Your task to perform on an android device: toggle notifications settings in the gmail app Image 0: 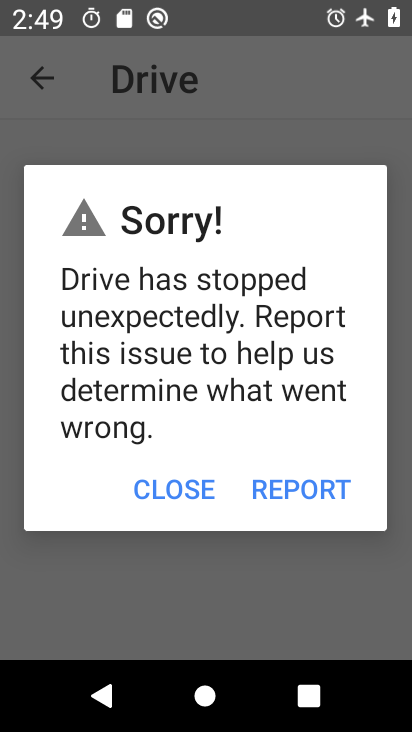
Step 0: press home button
Your task to perform on an android device: toggle notifications settings in the gmail app Image 1: 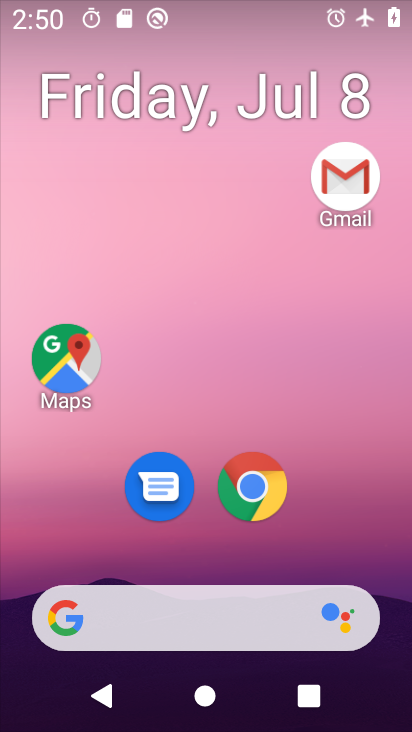
Step 1: drag from (366, 501) to (336, 104)
Your task to perform on an android device: toggle notifications settings in the gmail app Image 2: 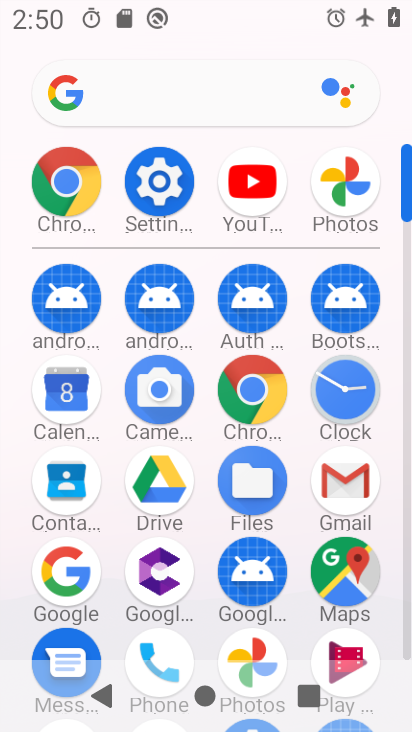
Step 2: click (363, 476)
Your task to perform on an android device: toggle notifications settings in the gmail app Image 3: 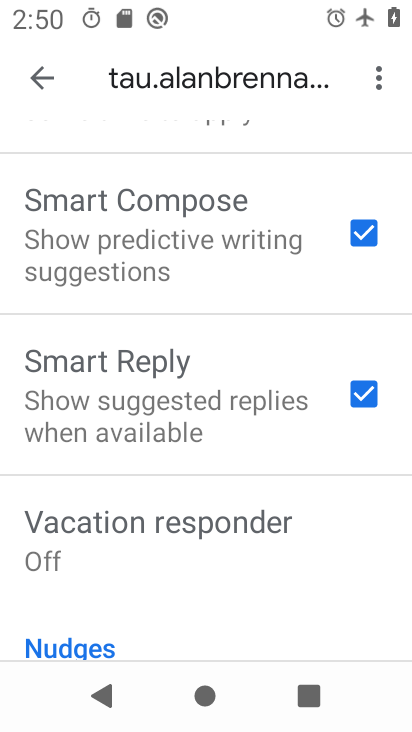
Step 3: press back button
Your task to perform on an android device: toggle notifications settings in the gmail app Image 4: 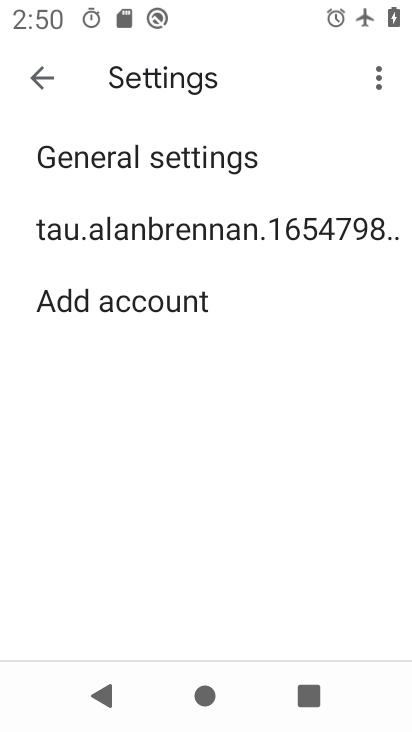
Step 4: press home button
Your task to perform on an android device: toggle notifications settings in the gmail app Image 5: 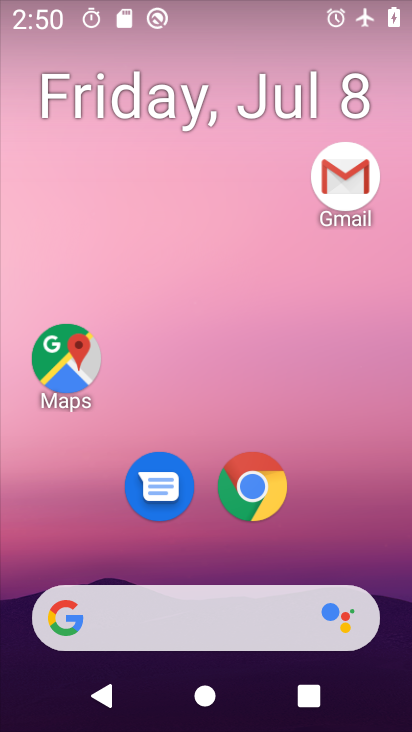
Step 5: drag from (340, 530) to (394, 138)
Your task to perform on an android device: toggle notifications settings in the gmail app Image 6: 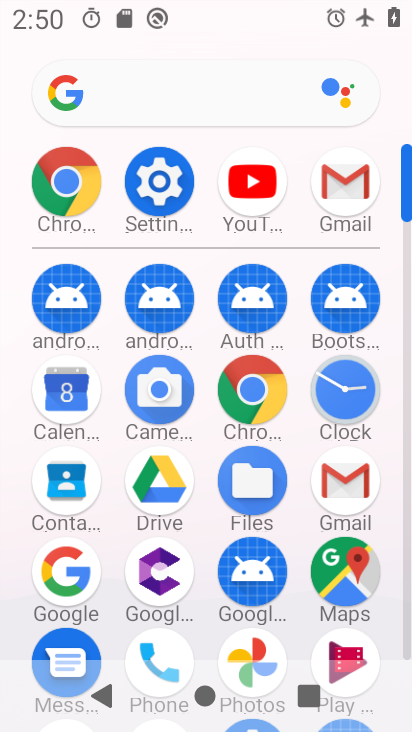
Step 6: click (363, 479)
Your task to perform on an android device: toggle notifications settings in the gmail app Image 7: 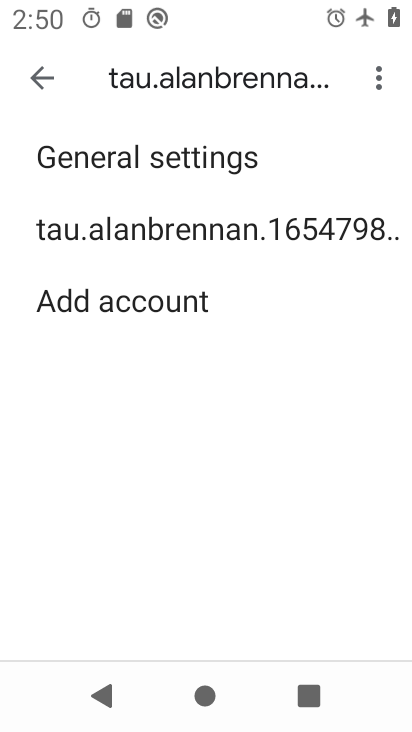
Step 7: click (221, 231)
Your task to perform on an android device: toggle notifications settings in the gmail app Image 8: 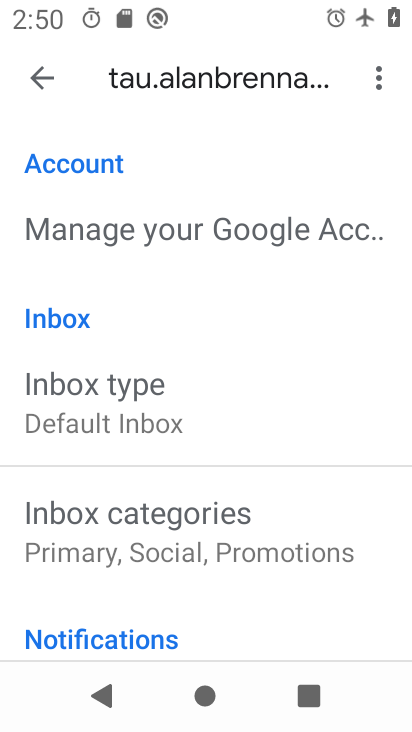
Step 8: drag from (301, 436) to (325, 310)
Your task to perform on an android device: toggle notifications settings in the gmail app Image 9: 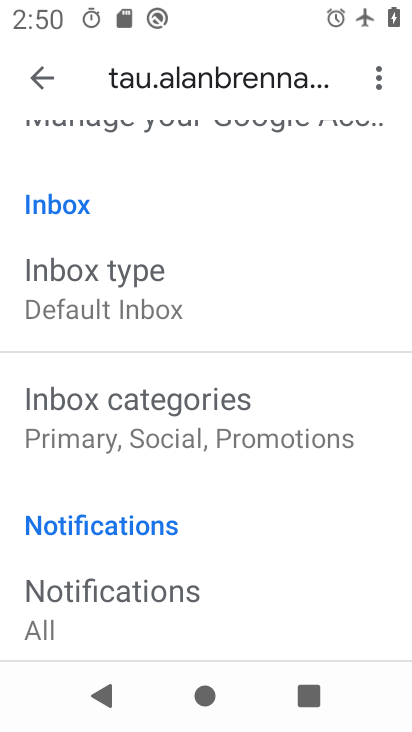
Step 9: drag from (340, 519) to (365, 344)
Your task to perform on an android device: toggle notifications settings in the gmail app Image 10: 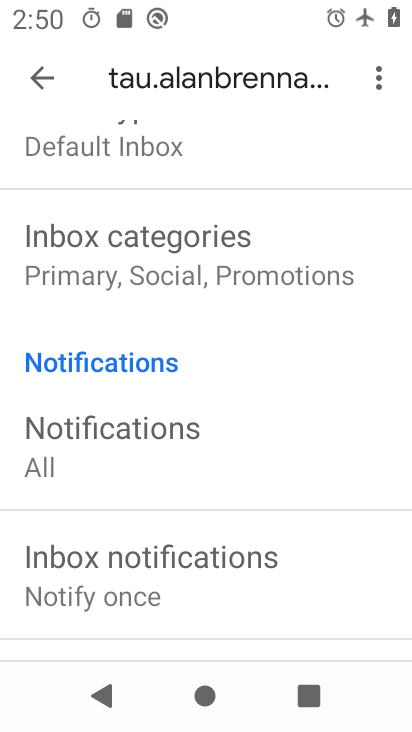
Step 10: drag from (337, 504) to (350, 368)
Your task to perform on an android device: toggle notifications settings in the gmail app Image 11: 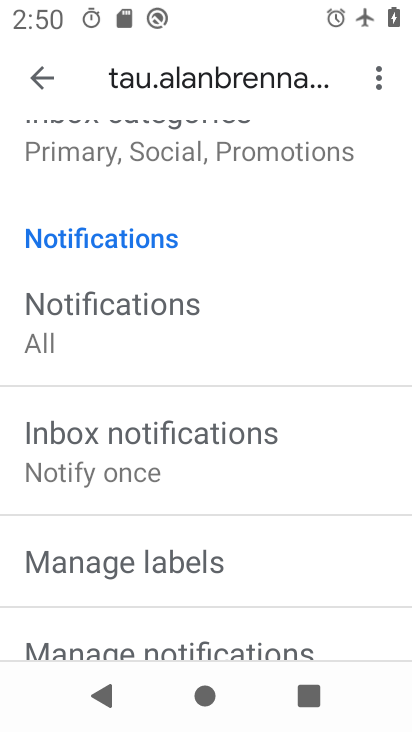
Step 11: drag from (336, 546) to (354, 398)
Your task to perform on an android device: toggle notifications settings in the gmail app Image 12: 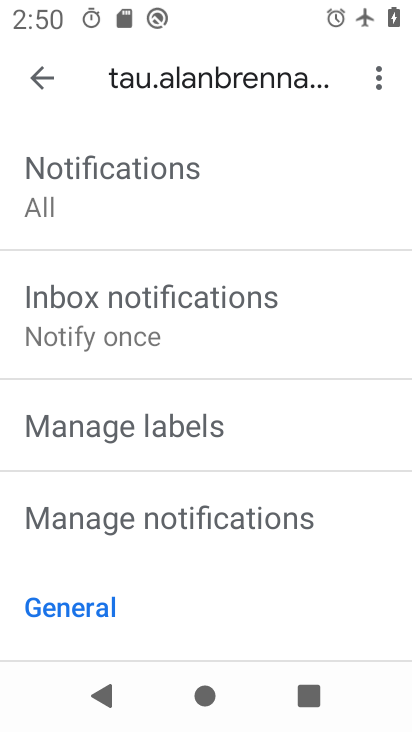
Step 12: drag from (349, 558) to (346, 397)
Your task to perform on an android device: toggle notifications settings in the gmail app Image 13: 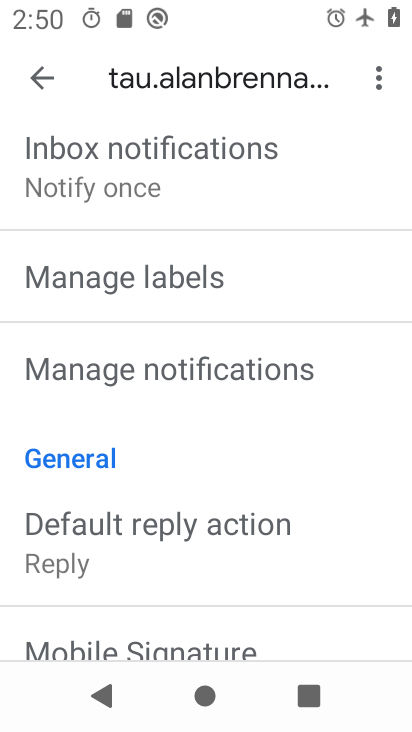
Step 13: drag from (354, 251) to (329, 417)
Your task to perform on an android device: toggle notifications settings in the gmail app Image 14: 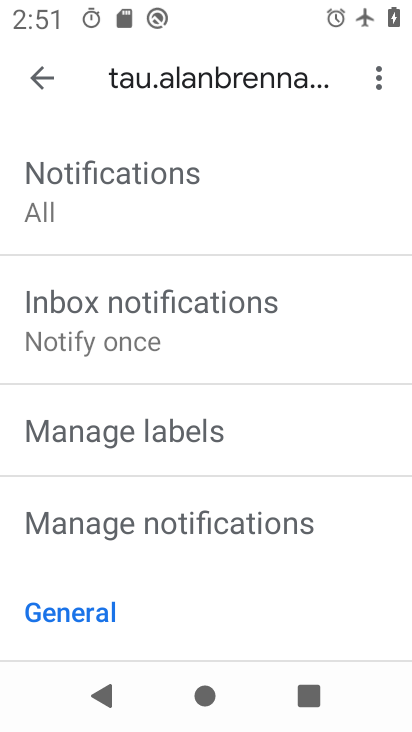
Step 14: drag from (331, 269) to (335, 536)
Your task to perform on an android device: toggle notifications settings in the gmail app Image 15: 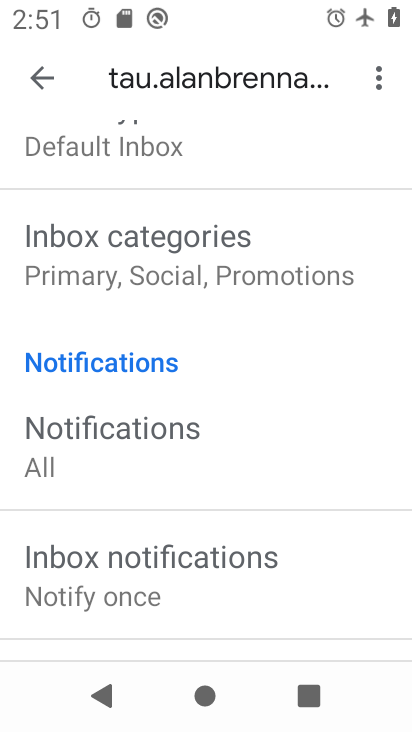
Step 15: drag from (351, 326) to (360, 528)
Your task to perform on an android device: toggle notifications settings in the gmail app Image 16: 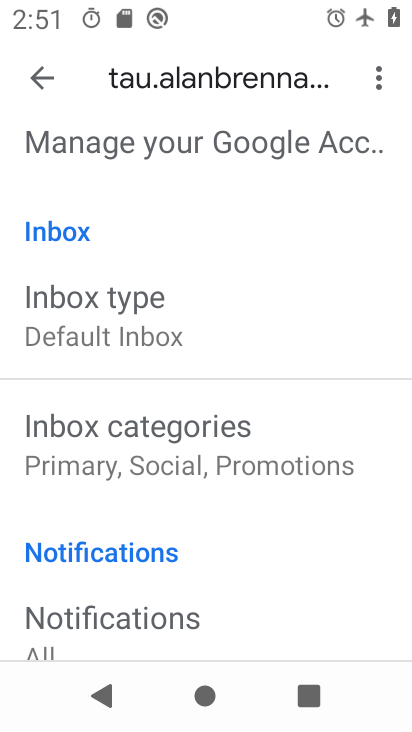
Step 16: drag from (357, 285) to (339, 460)
Your task to perform on an android device: toggle notifications settings in the gmail app Image 17: 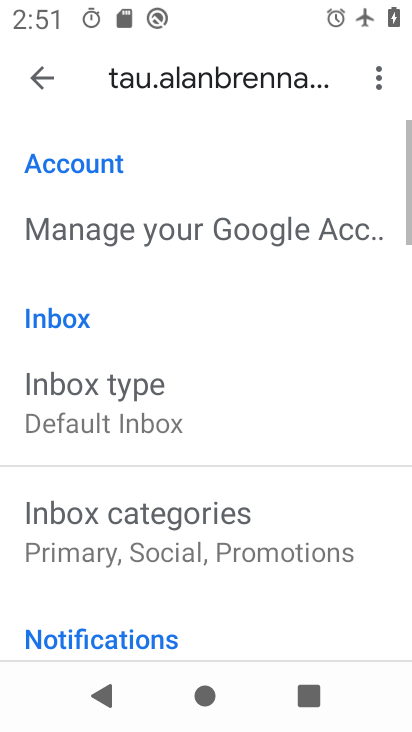
Step 17: drag from (345, 502) to (343, 349)
Your task to perform on an android device: toggle notifications settings in the gmail app Image 18: 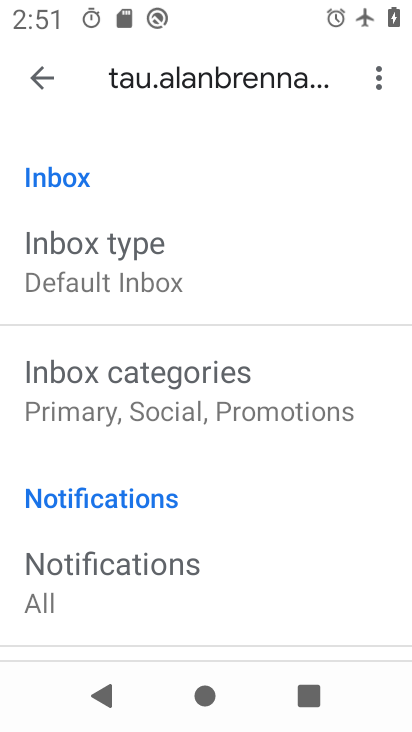
Step 18: drag from (336, 532) to (335, 308)
Your task to perform on an android device: toggle notifications settings in the gmail app Image 19: 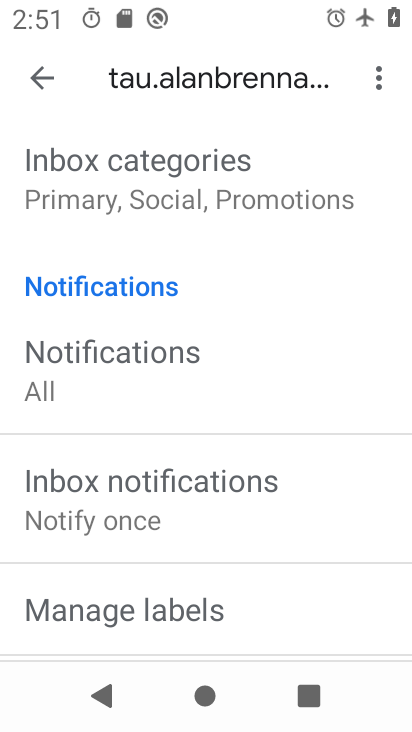
Step 19: drag from (333, 532) to (350, 313)
Your task to perform on an android device: toggle notifications settings in the gmail app Image 20: 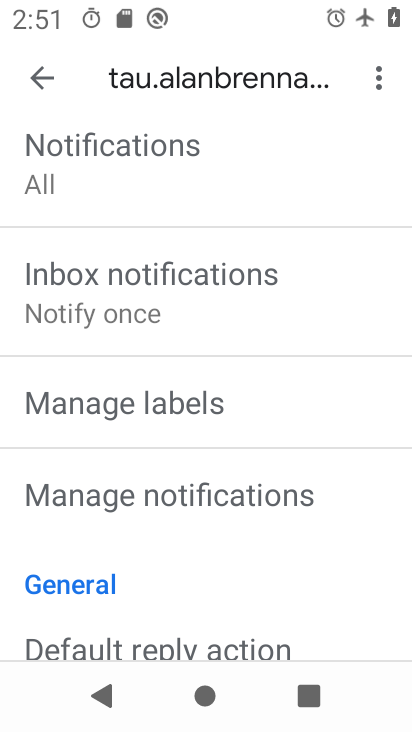
Step 20: click (280, 498)
Your task to perform on an android device: toggle notifications settings in the gmail app Image 21: 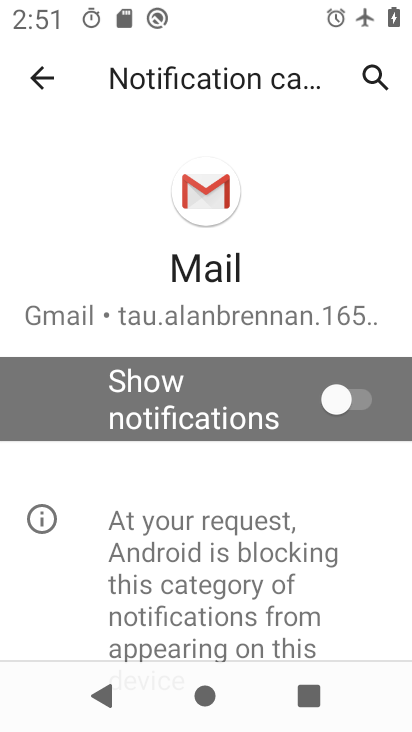
Step 21: drag from (342, 592) to (330, 437)
Your task to perform on an android device: toggle notifications settings in the gmail app Image 22: 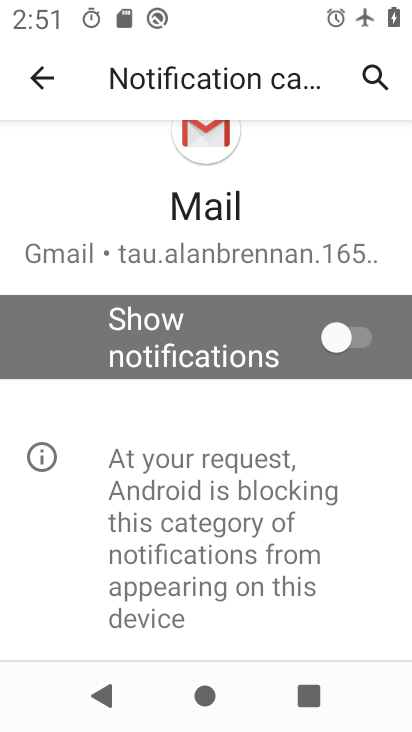
Step 22: click (334, 345)
Your task to perform on an android device: toggle notifications settings in the gmail app Image 23: 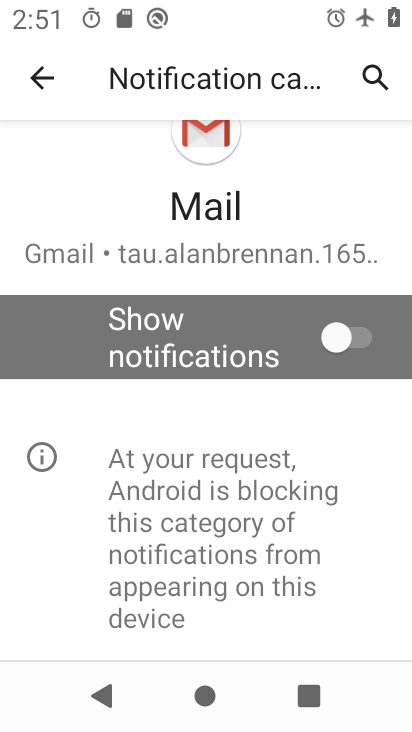
Step 23: task complete